Your task to perform on an android device: open app "Gmail" (install if not already installed), go to login, and select forgot password Image 0: 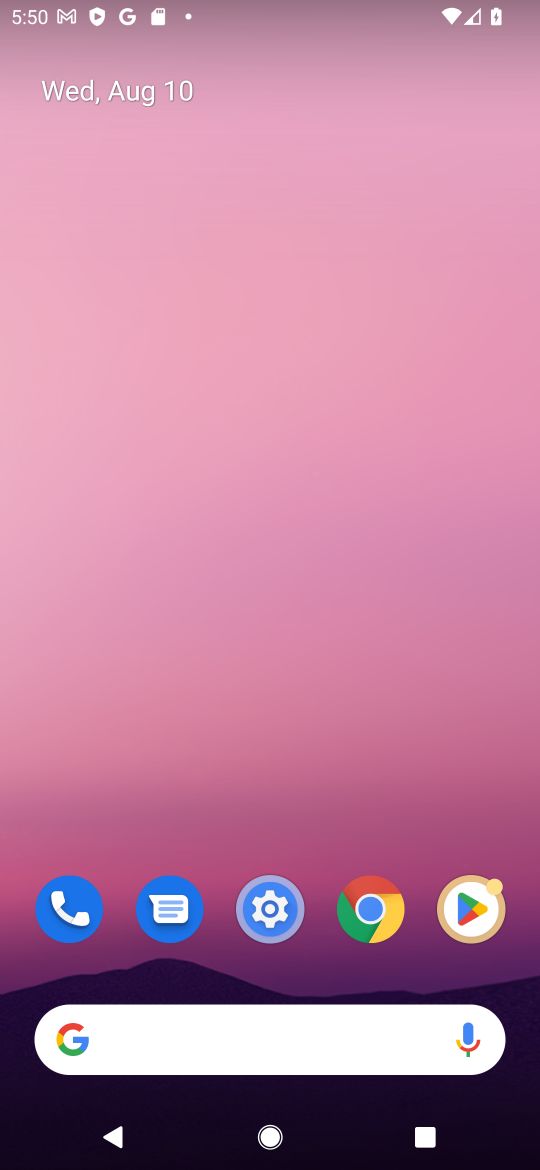
Step 0: drag from (333, 862) to (262, 466)
Your task to perform on an android device: open app "Gmail" (install if not already installed), go to login, and select forgot password Image 1: 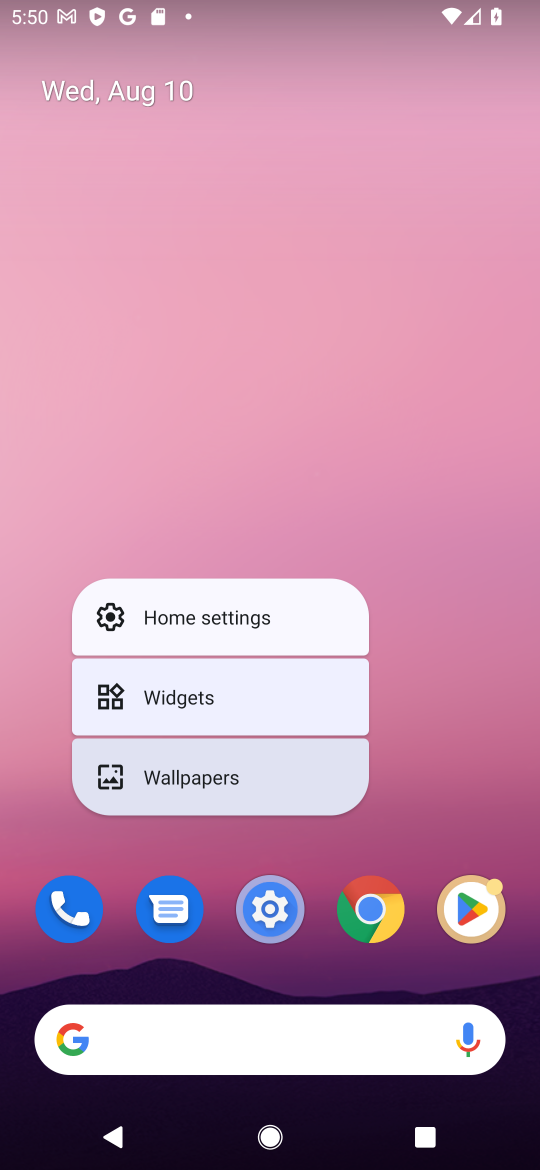
Step 1: click (513, 608)
Your task to perform on an android device: open app "Gmail" (install if not already installed), go to login, and select forgot password Image 2: 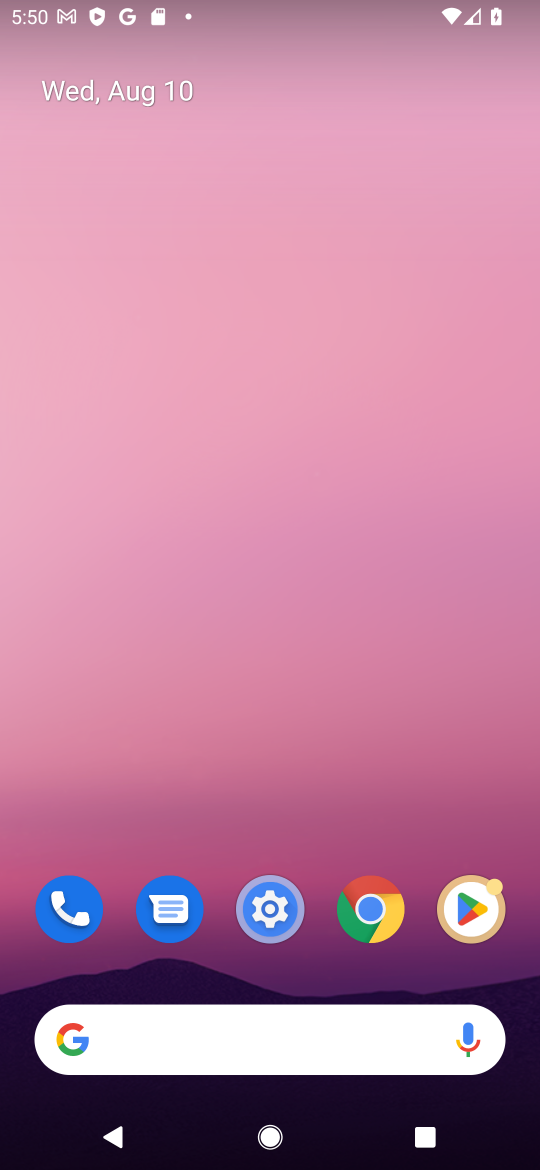
Step 2: drag from (359, 811) to (286, 185)
Your task to perform on an android device: open app "Gmail" (install if not already installed), go to login, and select forgot password Image 3: 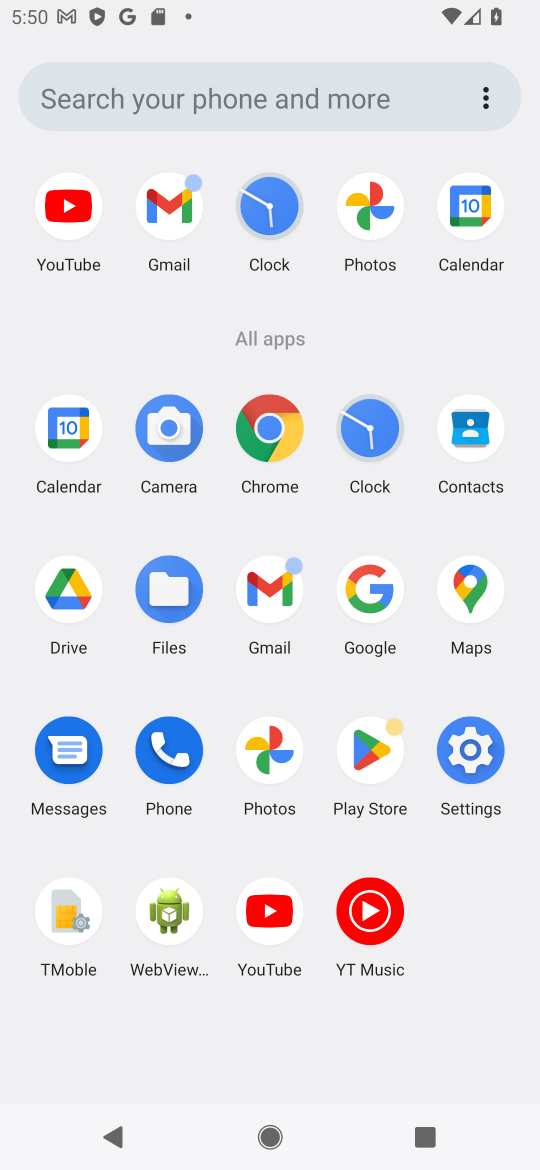
Step 3: click (280, 588)
Your task to perform on an android device: open app "Gmail" (install if not already installed), go to login, and select forgot password Image 4: 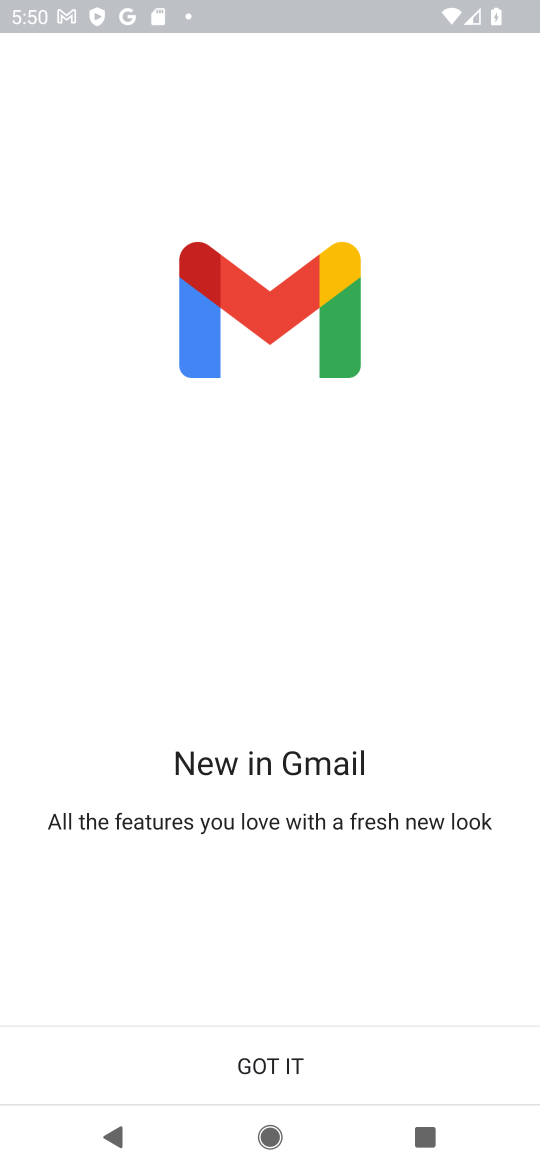
Step 4: click (329, 1067)
Your task to perform on an android device: open app "Gmail" (install if not already installed), go to login, and select forgot password Image 5: 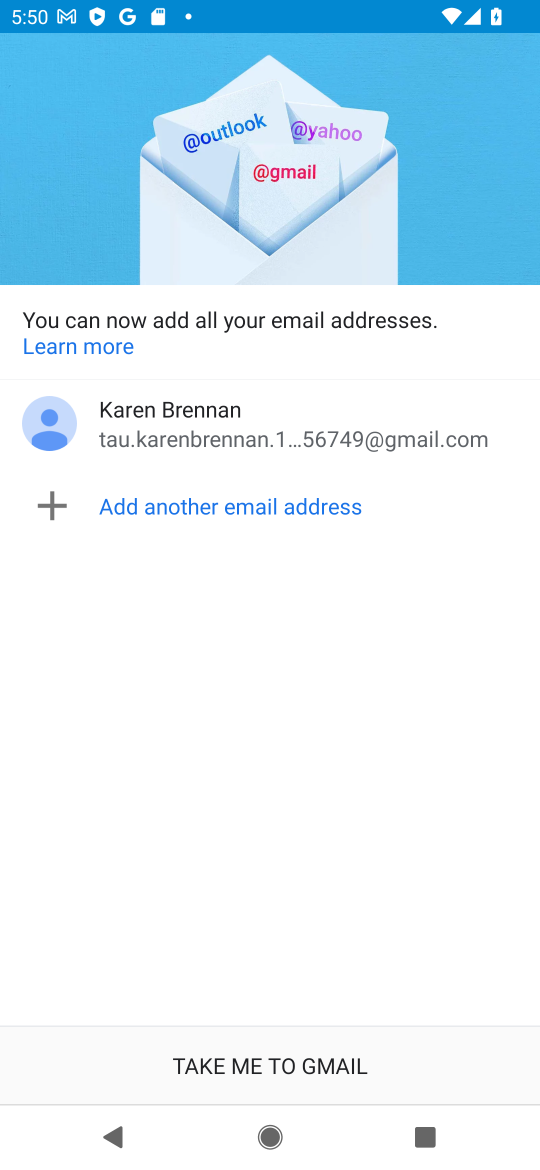
Step 5: click (162, 512)
Your task to perform on an android device: open app "Gmail" (install if not already installed), go to login, and select forgot password Image 6: 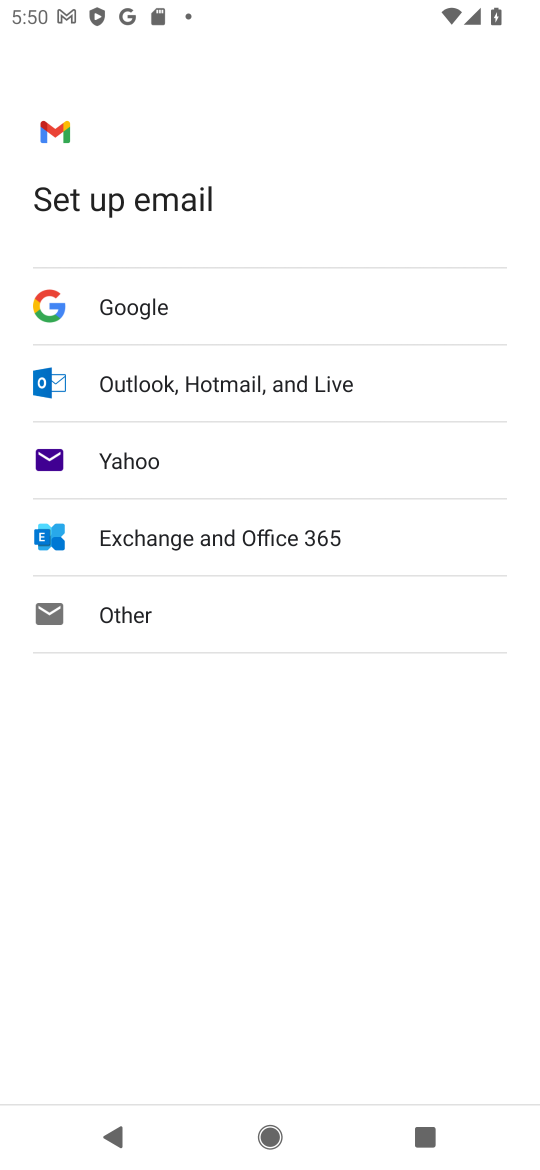
Step 6: click (153, 288)
Your task to perform on an android device: open app "Gmail" (install if not already installed), go to login, and select forgot password Image 7: 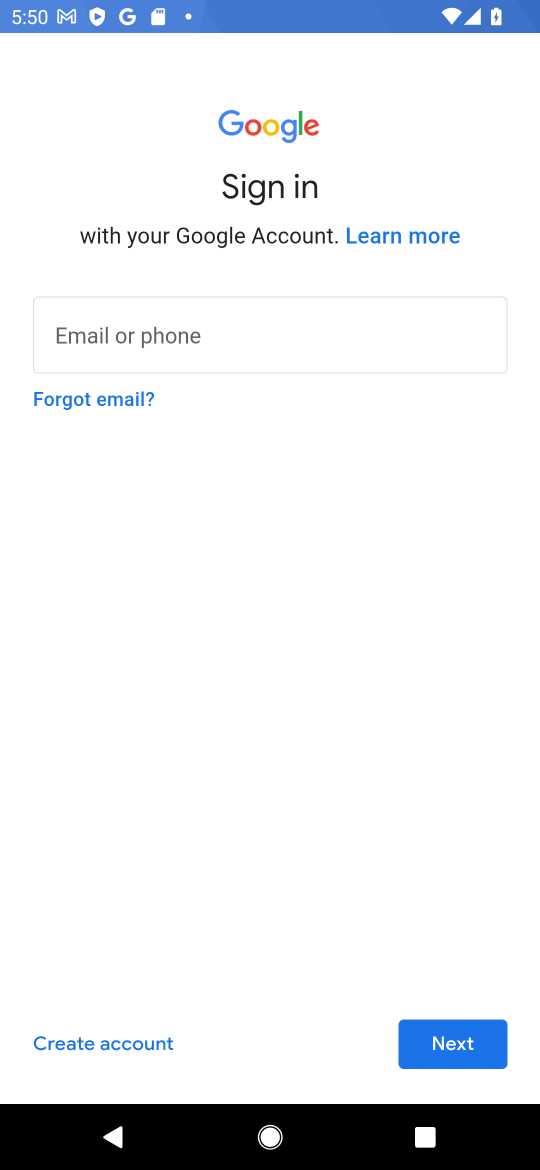
Step 7: click (445, 1022)
Your task to perform on an android device: open app "Gmail" (install if not already installed), go to login, and select forgot password Image 8: 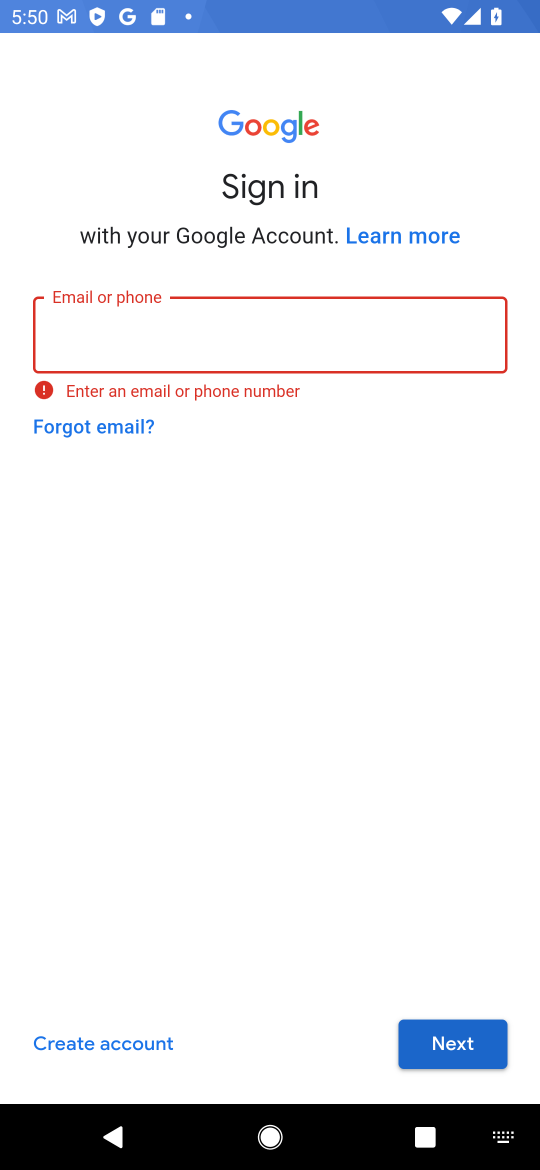
Step 8: task complete